Your task to perform on an android device: toggle show notifications on the lock screen Image 0: 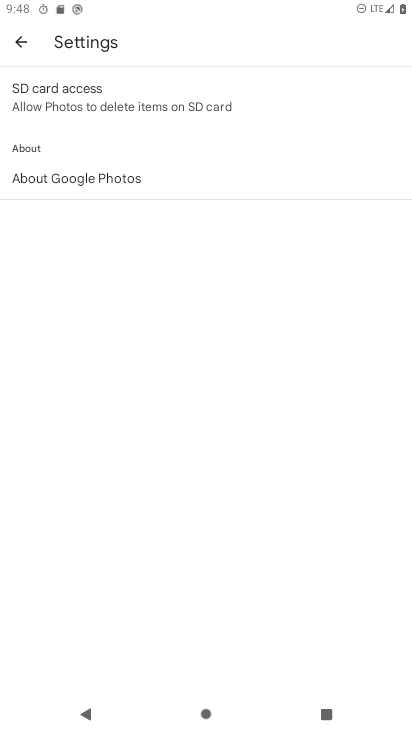
Step 0: press home button
Your task to perform on an android device: toggle show notifications on the lock screen Image 1: 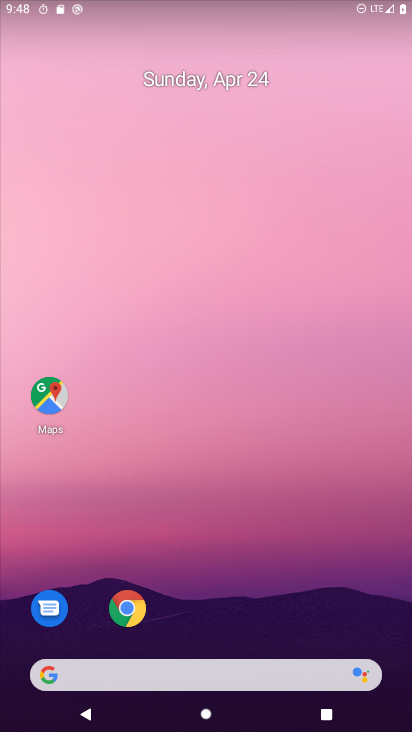
Step 1: drag from (279, 636) to (350, 28)
Your task to perform on an android device: toggle show notifications on the lock screen Image 2: 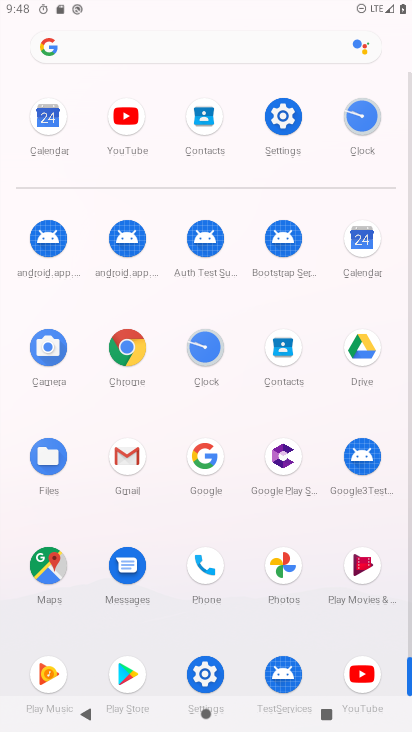
Step 2: click (281, 113)
Your task to perform on an android device: toggle show notifications on the lock screen Image 3: 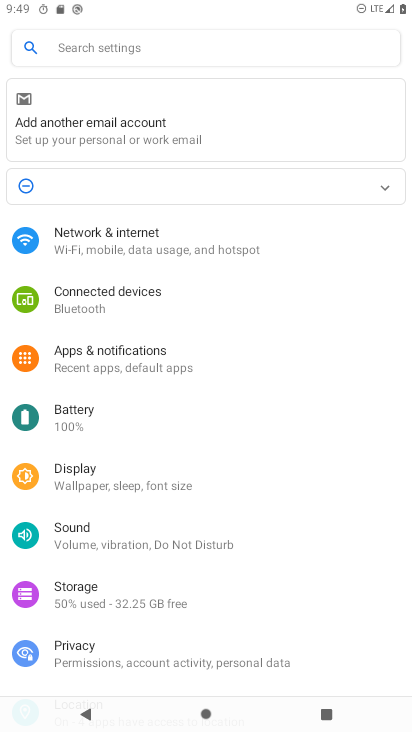
Step 3: click (127, 353)
Your task to perform on an android device: toggle show notifications on the lock screen Image 4: 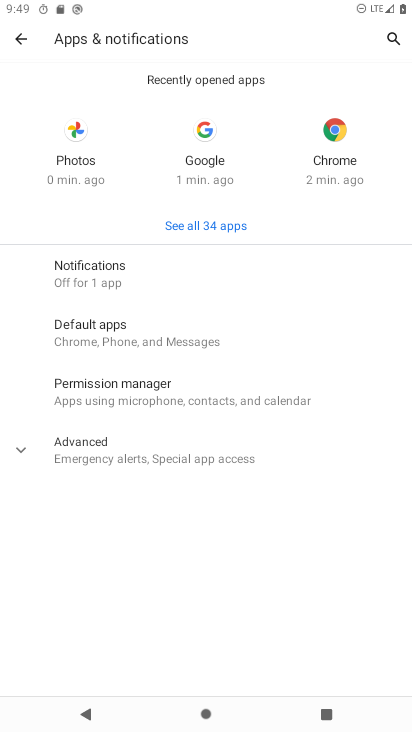
Step 4: click (132, 279)
Your task to perform on an android device: toggle show notifications on the lock screen Image 5: 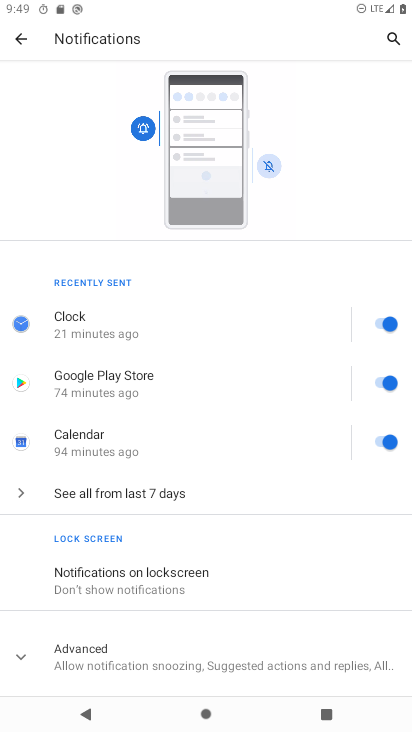
Step 5: click (182, 577)
Your task to perform on an android device: toggle show notifications on the lock screen Image 6: 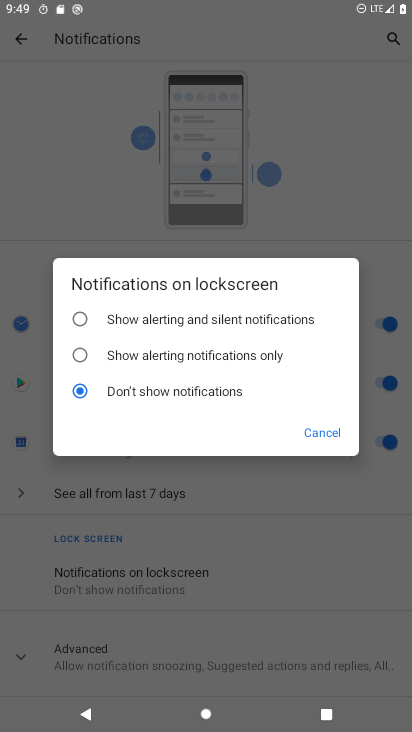
Step 6: click (75, 317)
Your task to perform on an android device: toggle show notifications on the lock screen Image 7: 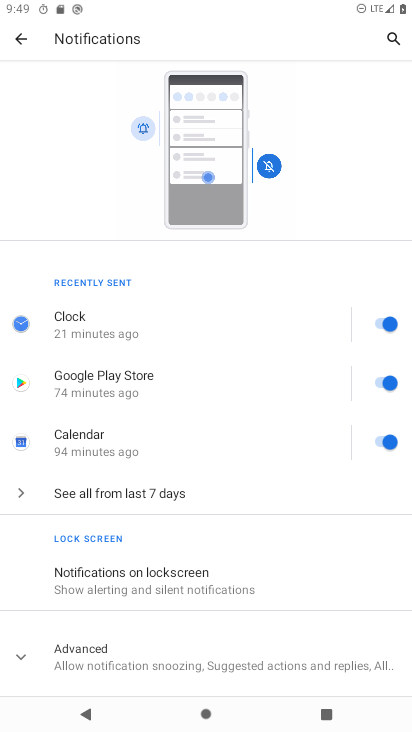
Step 7: task complete